Your task to perform on an android device: search for starred emails in the gmail app Image 0: 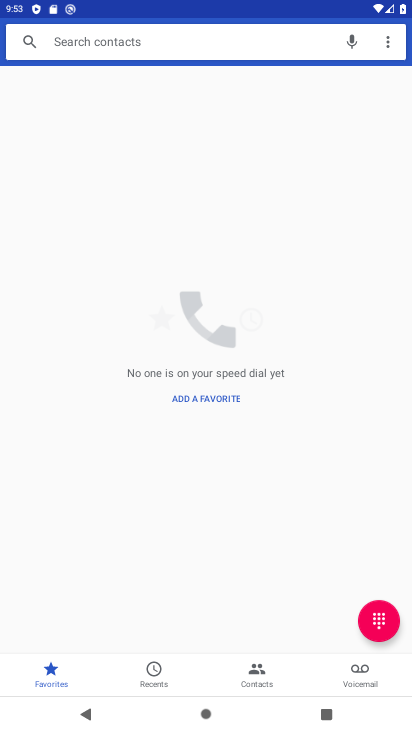
Step 0: press home button
Your task to perform on an android device: search for starred emails in the gmail app Image 1: 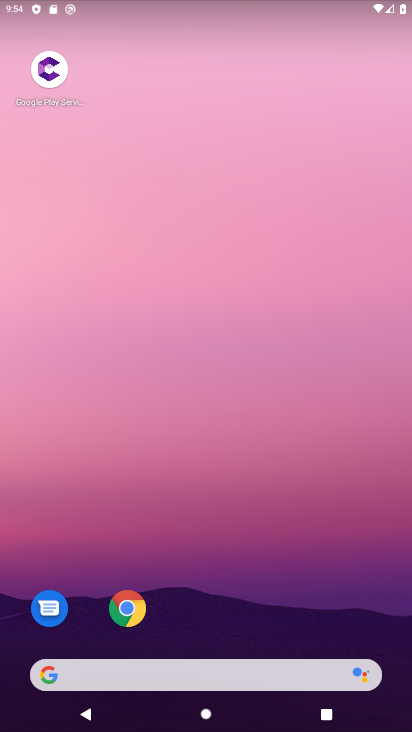
Step 1: drag from (292, 624) to (244, 20)
Your task to perform on an android device: search for starred emails in the gmail app Image 2: 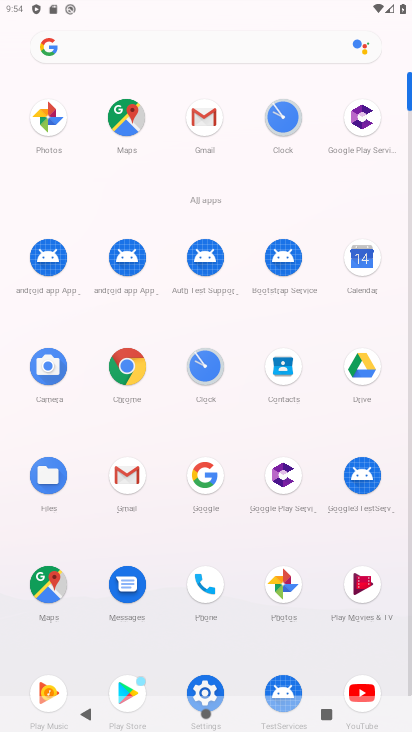
Step 2: click (211, 131)
Your task to perform on an android device: search for starred emails in the gmail app Image 3: 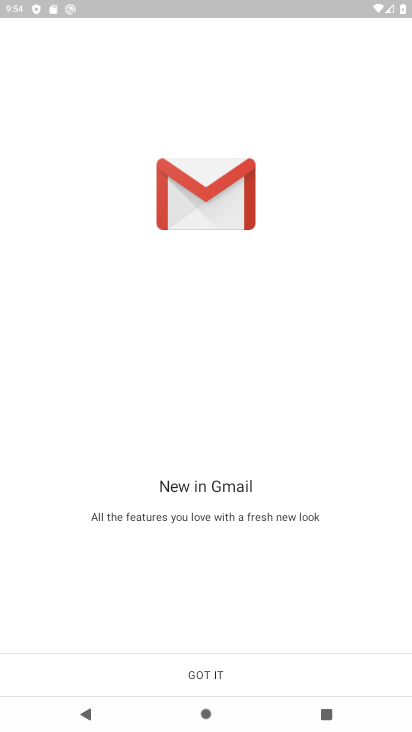
Step 3: click (279, 675)
Your task to perform on an android device: search for starred emails in the gmail app Image 4: 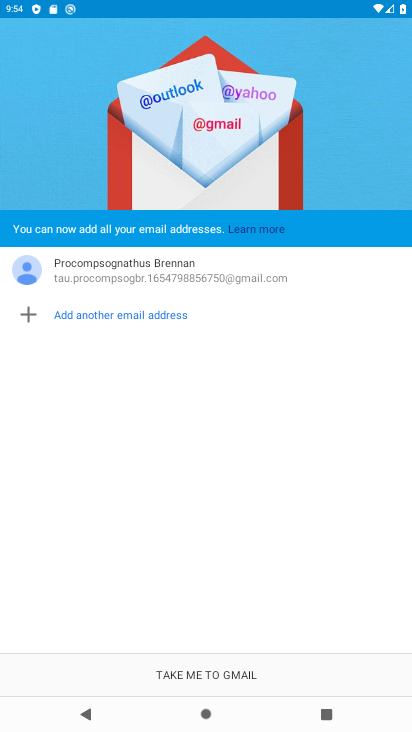
Step 4: click (230, 673)
Your task to perform on an android device: search for starred emails in the gmail app Image 5: 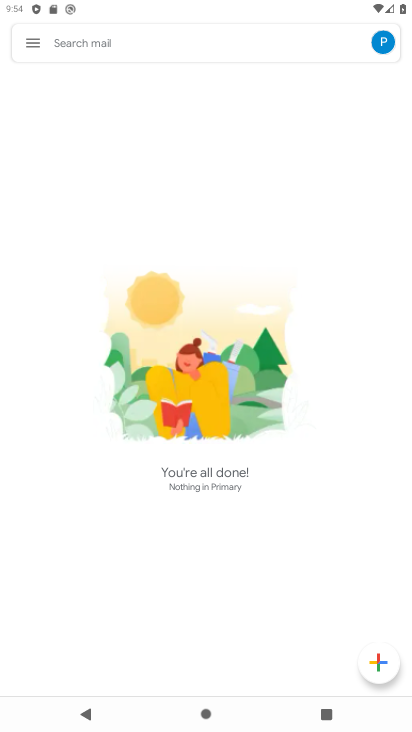
Step 5: click (38, 41)
Your task to perform on an android device: search for starred emails in the gmail app Image 6: 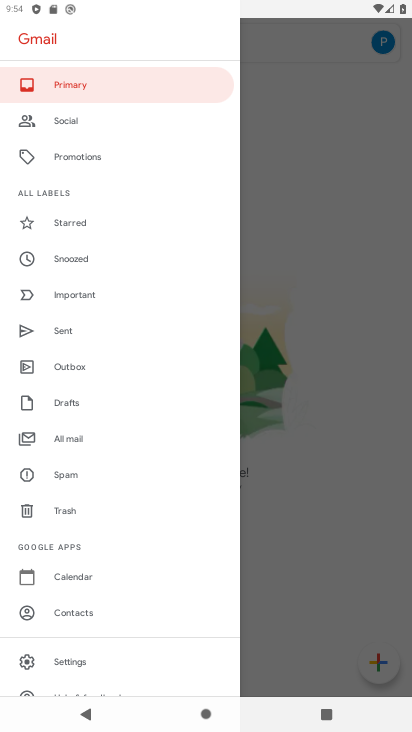
Step 6: click (80, 222)
Your task to perform on an android device: search for starred emails in the gmail app Image 7: 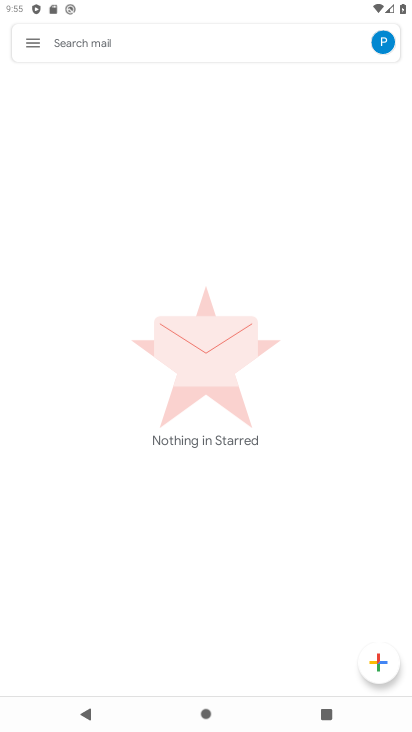
Step 7: task complete